Your task to perform on an android device: Open Chrome and go to settings Image 0: 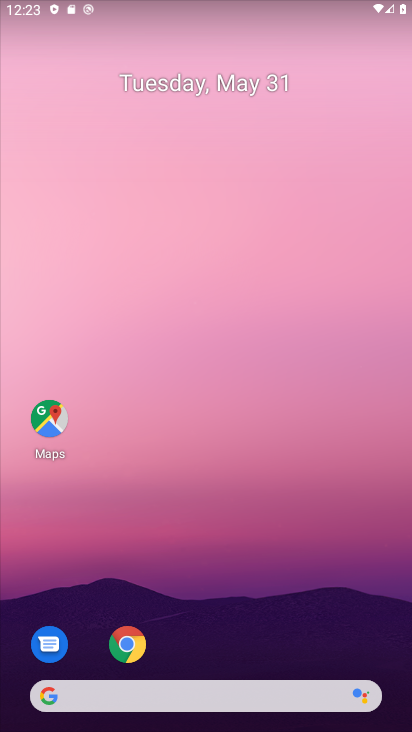
Step 0: press home button
Your task to perform on an android device: Open Chrome and go to settings Image 1: 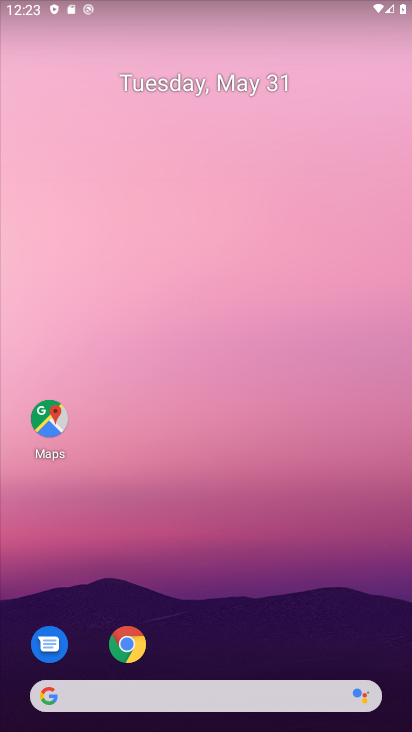
Step 1: click (129, 652)
Your task to perform on an android device: Open Chrome and go to settings Image 2: 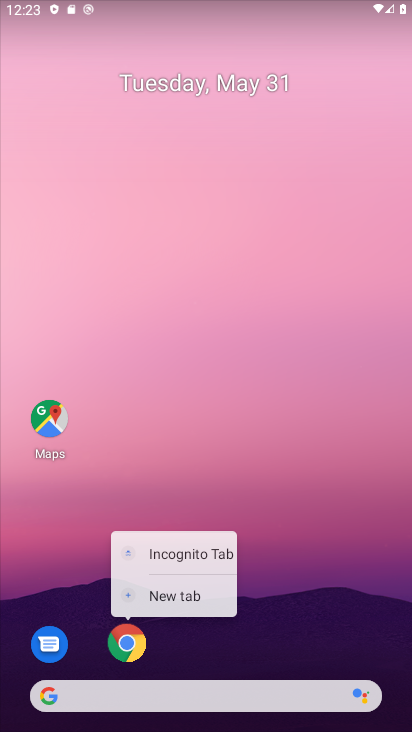
Step 2: click (210, 650)
Your task to perform on an android device: Open Chrome and go to settings Image 3: 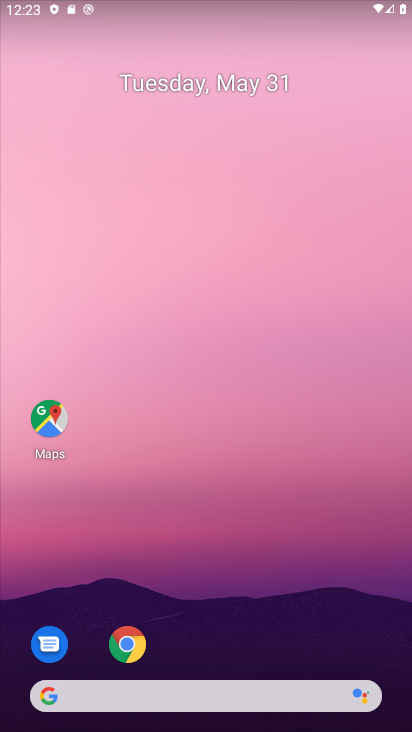
Step 3: click (125, 642)
Your task to perform on an android device: Open Chrome and go to settings Image 4: 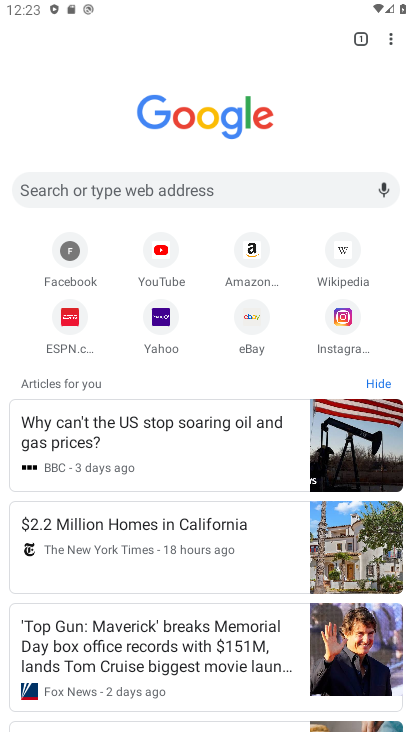
Step 4: click (391, 43)
Your task to perform on an android device: Open Chrome and go to settings Image 5: 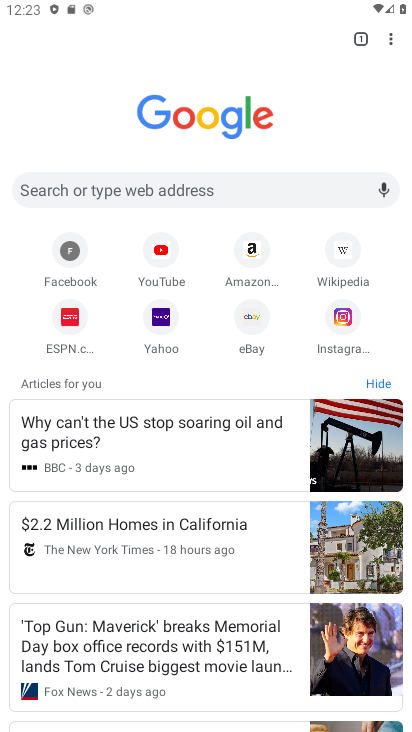
Step 5: task complete